Your task to perform on an android device: choose inbox layout in the gmail app Image 0: 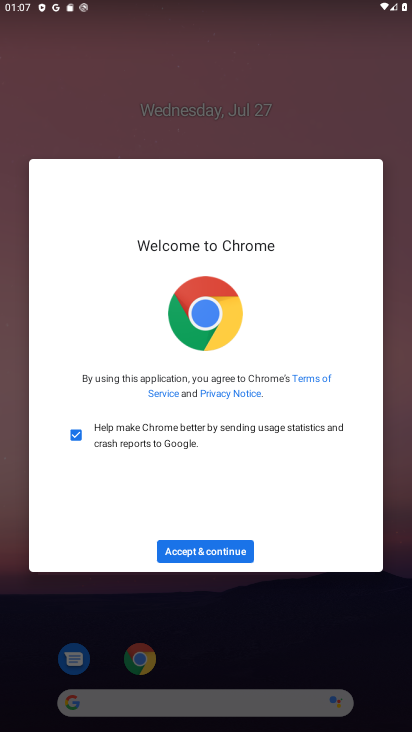
Step 0: press home button
Your task to perform on an android device: choose inbox layout in the gmail app Image 1: 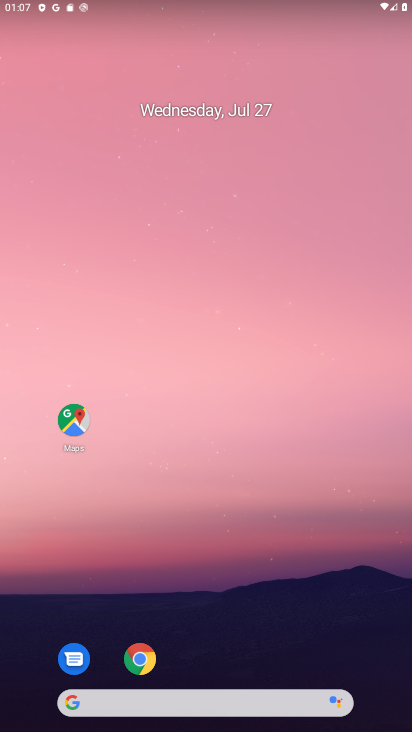
Step 1: drag from (294, 511) to (179, 53)
Your task to perform on an android device: choose inbox layout in the gmail app Image 2: 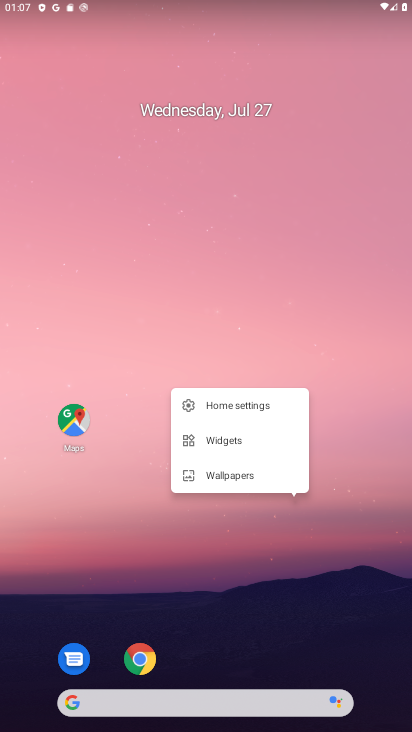
Step 2: click (357, 609)
Your task to perform on an android device: choose inbox layout in the gmail app Image 3: 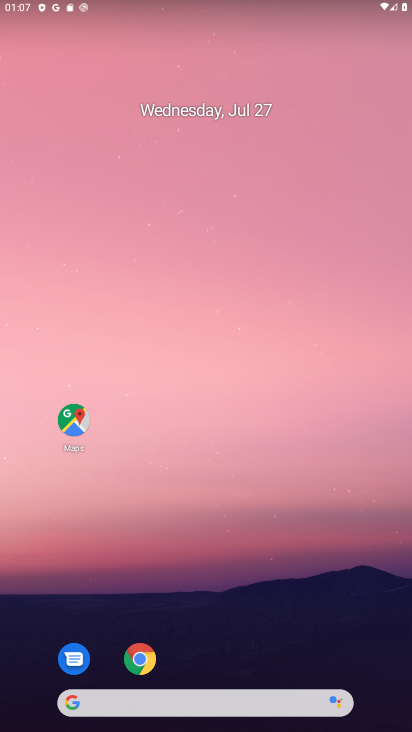
Step 3: drag from (357, 609) to (220, 77)
Your task to perform on an android device: choose inbox layout in the gmail app Image 4: 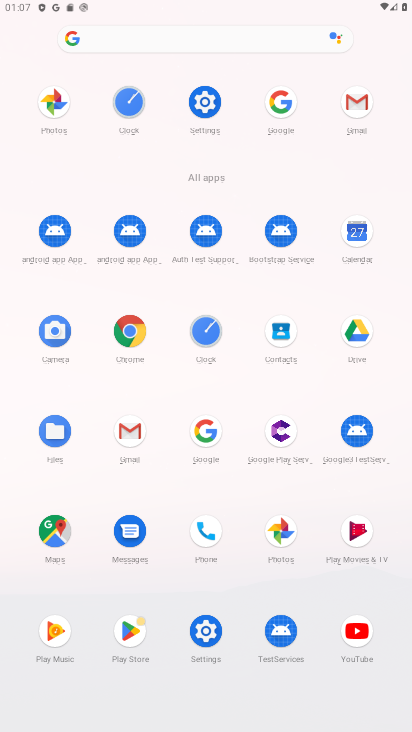
Step 4: click (132, 437)
Your task to perform on an android device: choose inbox layout in the gmail app Image 5: 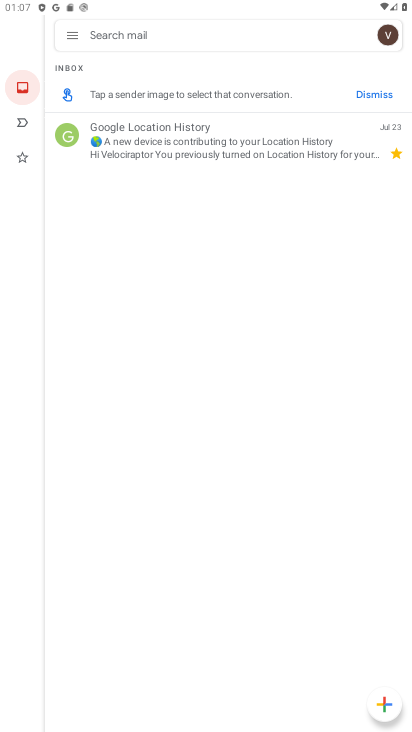
Step 5: click (73, 35)
Your task to perform on an android device: choose inbox layout in the gmail app Image 6: 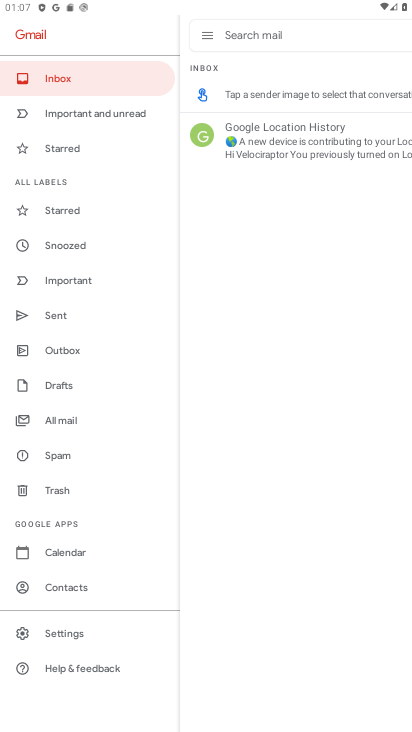
Step 6: click (105, 627)
Your task to perform on an android device: choose inbox layout in the gmail app Image 7: 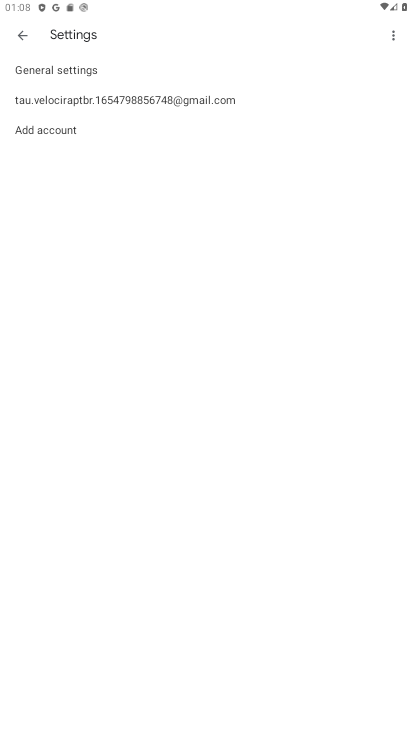
Step 7: click (104, 107)
Your task to perform on an android device: choose inbox layout in the gmail app Image 8: 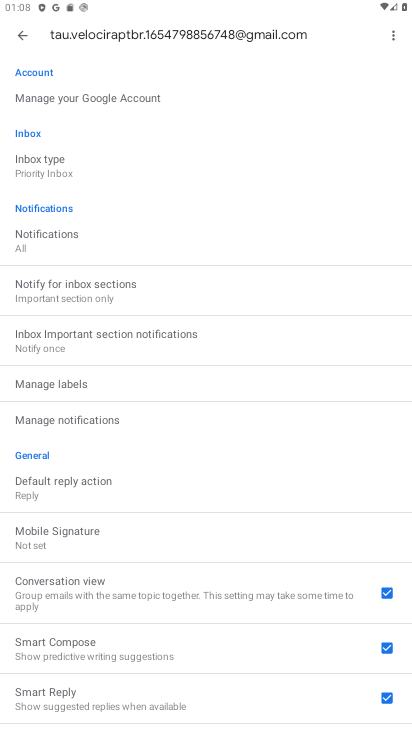
Step 8: click (106, 157)
Your task to perform on an android device: choose inbox layout in the gmail app Image 9: 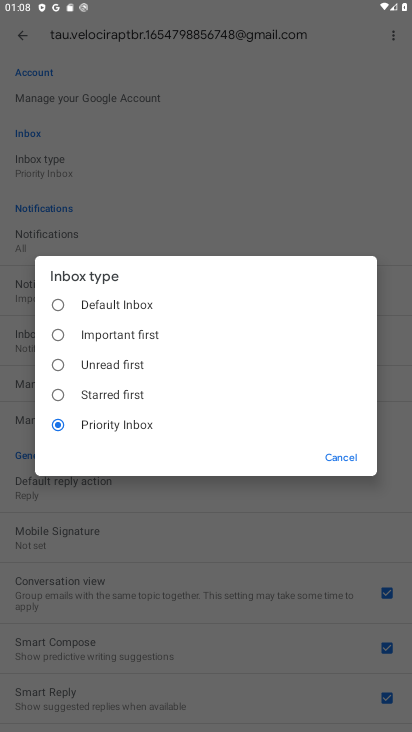
Step 9: click (139, 361)
Your task to perform on an android device: choose inbox layout in the gmail app Image 10: 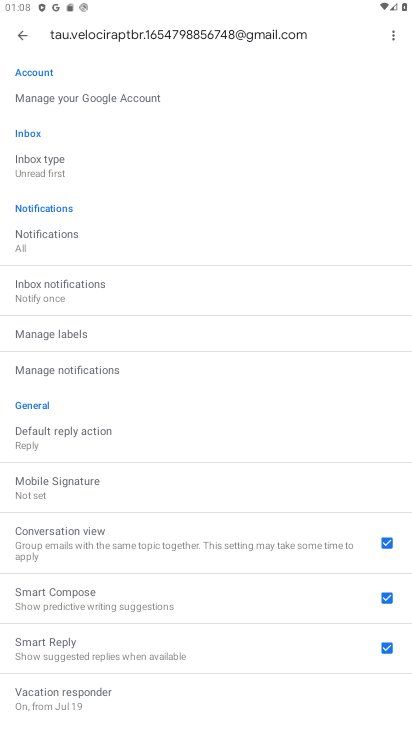
Step 10: task complete